Your task to perform on an android device: stop showing notifications on the lock screen Image 0: 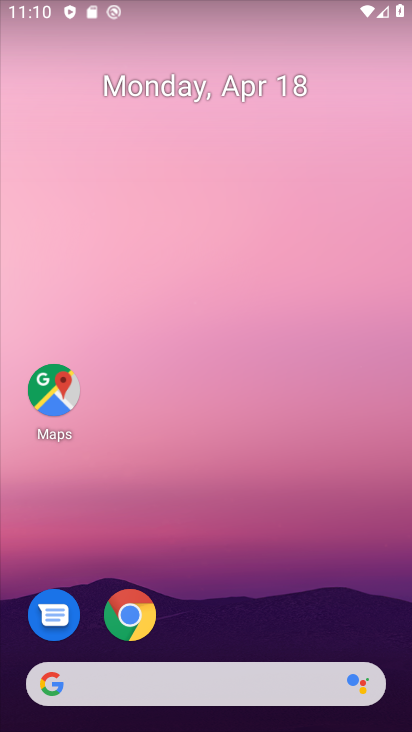
Step 0: drag from (213, 628) to (213, 198)
Your task to perform on an android device: stop showing notifications on the lock screen Image 1: 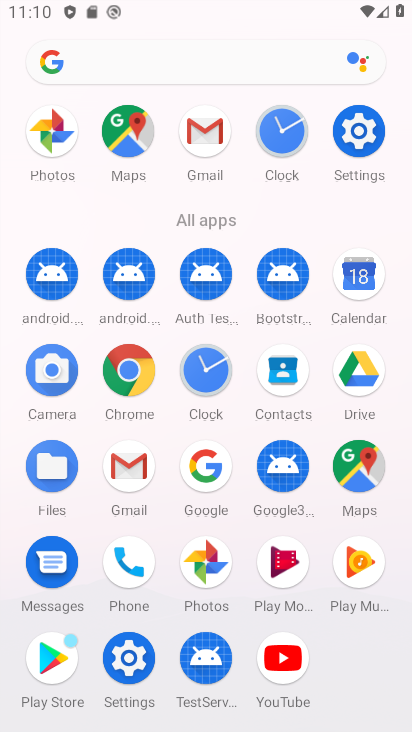
Step 1: click (349, 133)
Your task to perform on an android device: stop showing notifications on the lock screen Image 2: 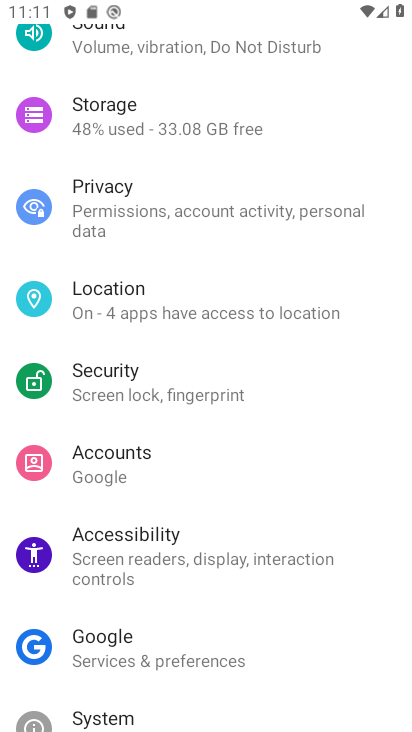
Step 2: drag from (190, 293) to (204, 496)
Your task to perform on an android device: stop showing notifications on the lock screen Image 3: 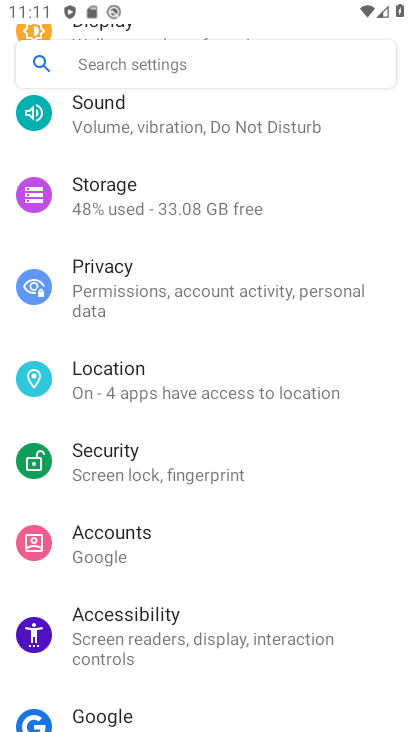
Step 3: drag from (205, 168) to (202, 534)
Your task to perform on an android device: stop showing notifications on the lock screen Image 4: 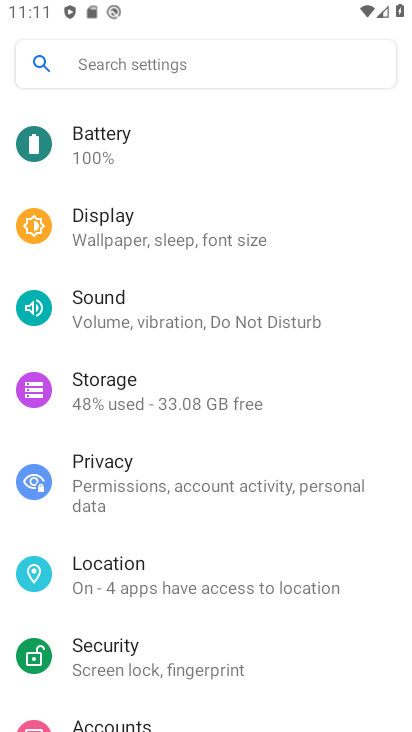
Step 4: drag from (224, 288) to (251, 555)
Your task to perform on an android device: stop showing notifications on the lock screen Image 5: 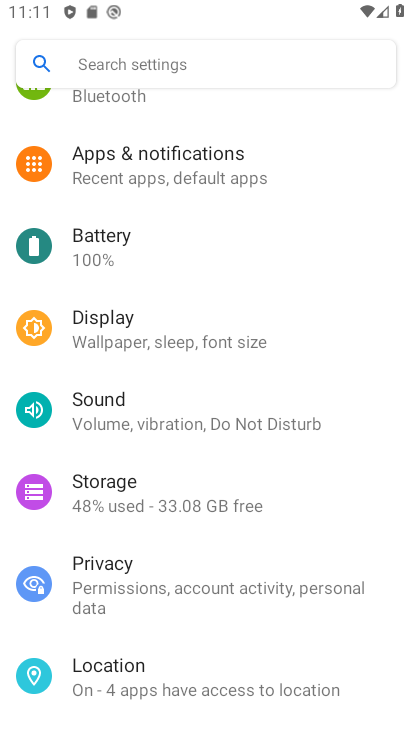
Step 5: click (189, 171)
Your task to perform on an android device: stop showing notifications on the lock screen Image 6: 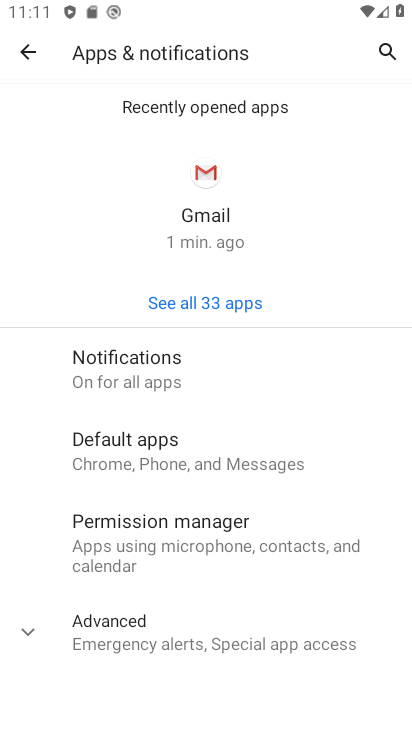
Step 6: click (165, 371)
Your task to perform on an android device: stop showing notifications on the lock screen Image 7: 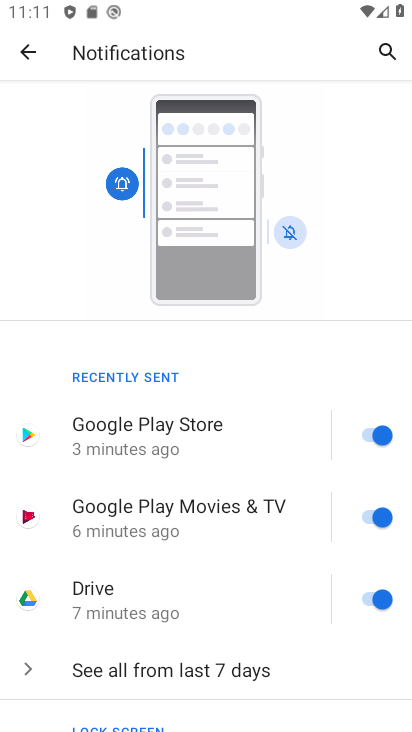
Step 7: drag from (184, 648) to (248, 234)
Your task to perform on an android device: stop showing notifications on the lock screen Image 8: 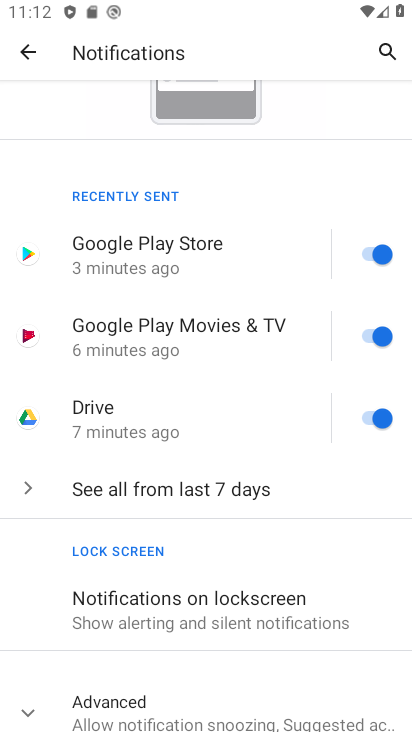
Step 8: drag from (222, 464) to (241, 331)
Your task to perform on an android device: stop showing notifications on the lock screen Image 9: 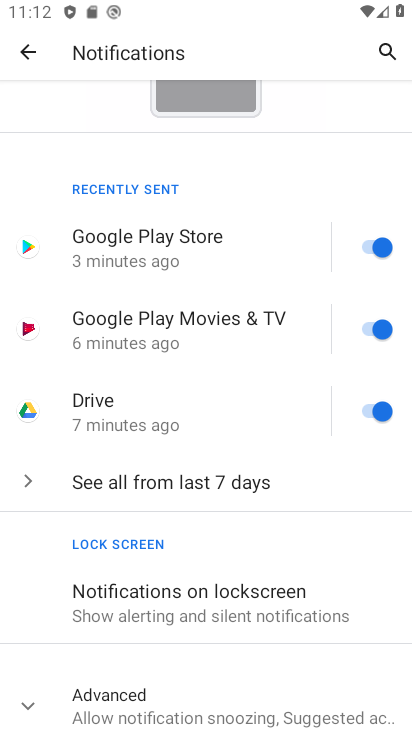
Step 9: click (222, 606)
Your task to perform on an android device: stop showing notifications on the lock screen Image 10: 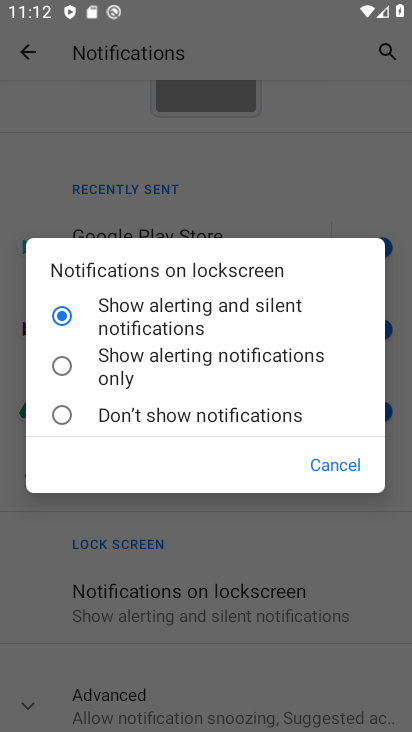
Step 10: click (146, 420)
Your task to perform on an android device: stop showing notifications on the lock screen Image 11: 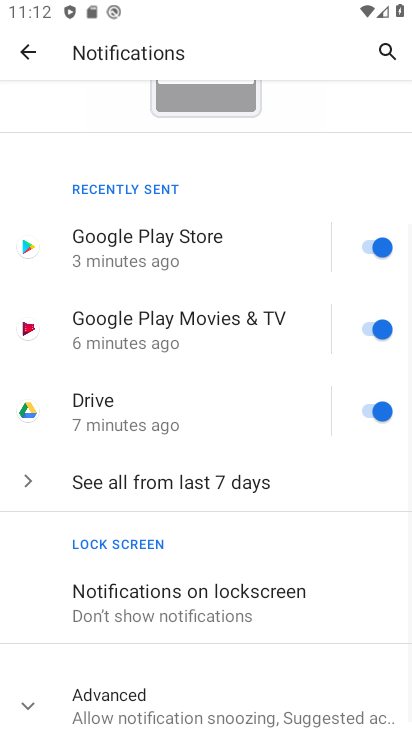
Step 11: task complete